Your task to perform on an android device: turn on priority inbox in the gmail app Image 0: 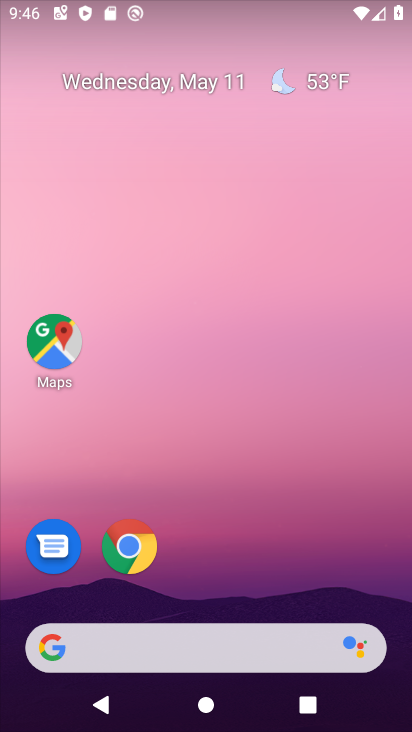
Step 0: drag from (408, 656) to (297, 41)
Your task to perform on an android device: turn on priority inbox in the gmail app Image 1: 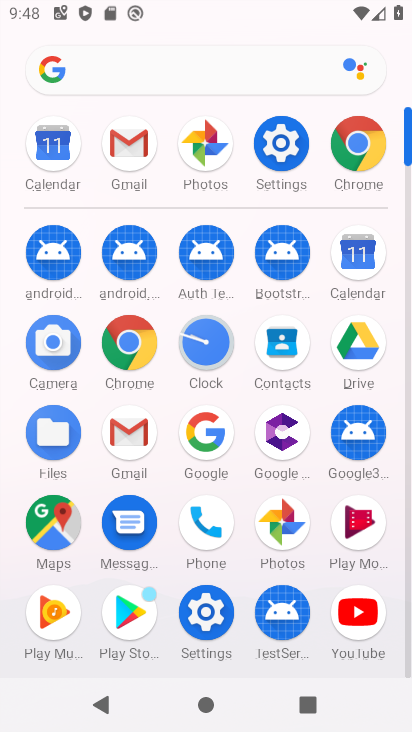
Step 1: click (107, 147)
Your task to perform on an android device: turn on priority inbox in the gmail app Image 2: 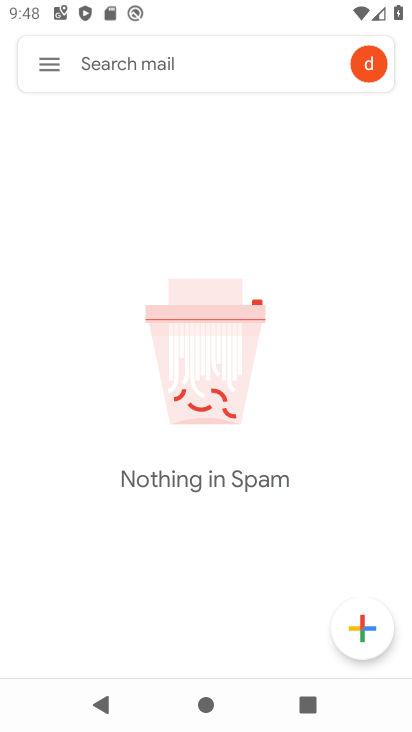
Step 2: click (34, 66)
Your task to perform on an android device: turn on priority inbox in the gmail app Image 3: 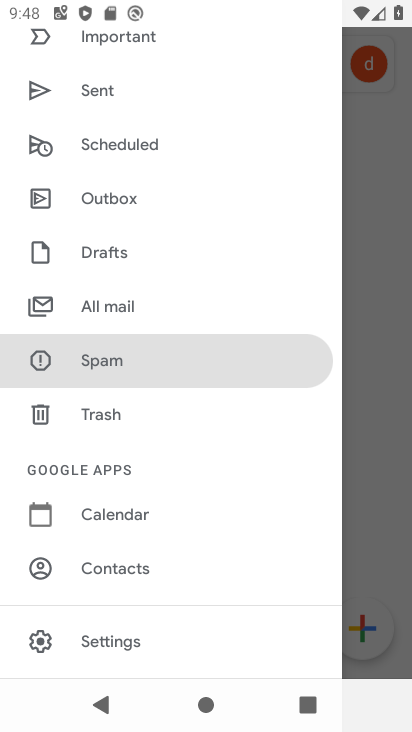
Step 3: click (114, 639)
Your task to perform on an android device: turn on priority inbox in the gmail app Image 4: 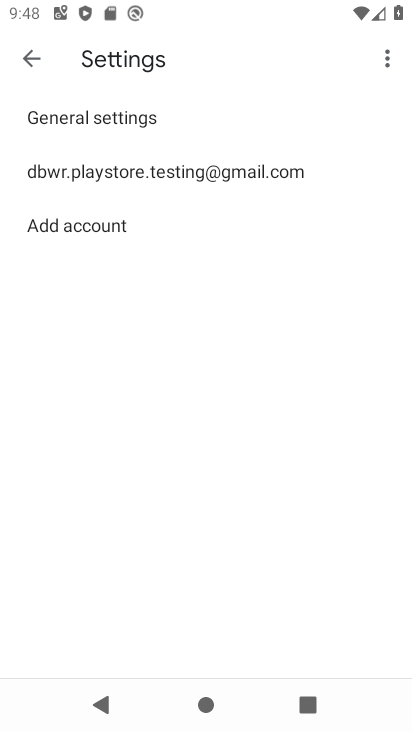
Step 4: click (213, 168)
Your task to perform on an android device: turn on priority inbox in the gmail app Image 5: 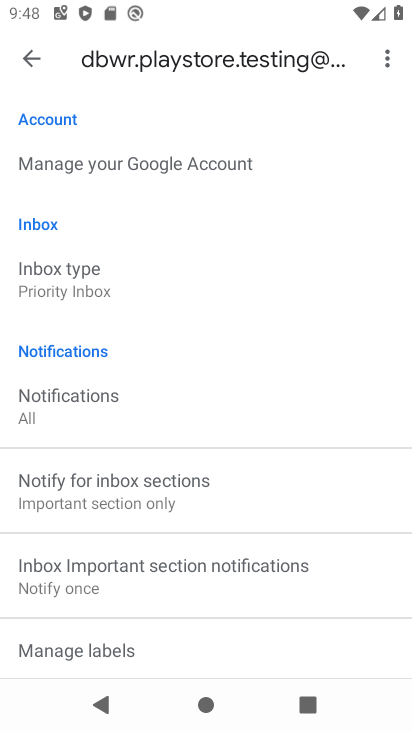
Step 5: click (128, 286)
Your task to perform on an android device: turn on priority inbox in the gmail app Image 6: 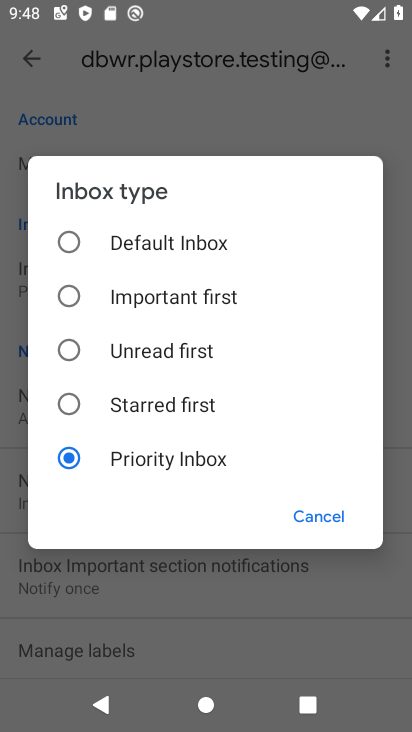
Step 6: task complete